Your task to perform on an android device: Search for pizza restaurants on Maps Image 0: 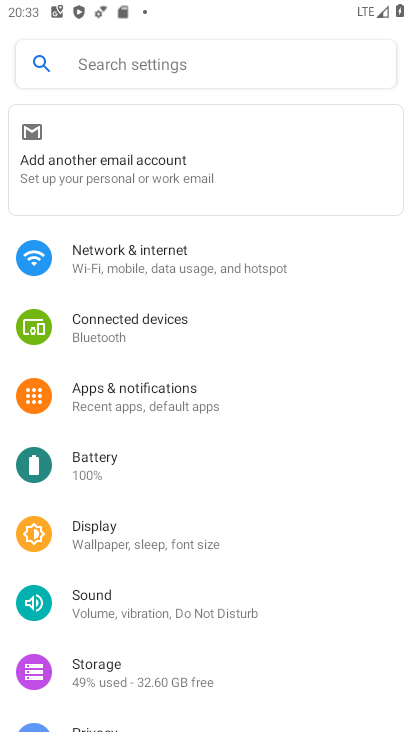
Step 0: press home button
Your task to perform on an android device: Search for pizza restaurants on Maps Image 1: 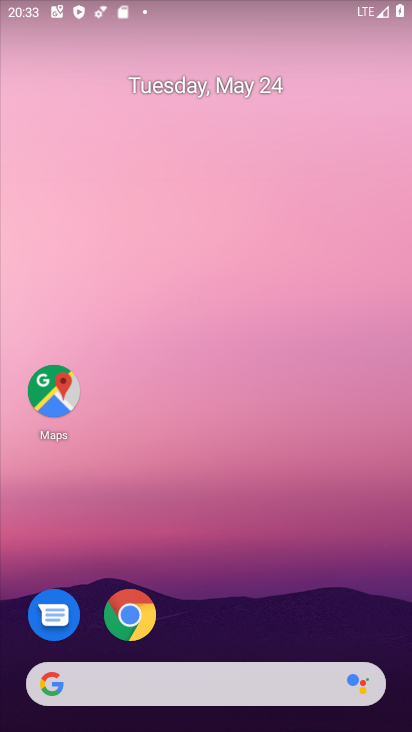
Step 1: click (44, 380)
Your task to perform on an android device: Search for pizza restaurants on Maps Image 2: 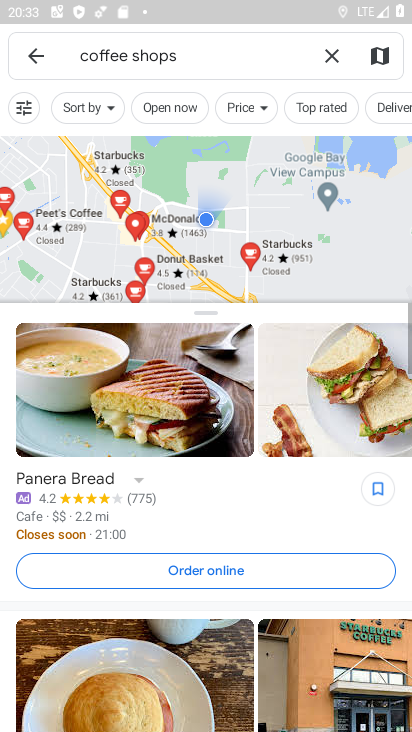
Step 2: click (321, 57)
Your task to perform on an android device: Search for pizza restaurants on Maps Image 3: 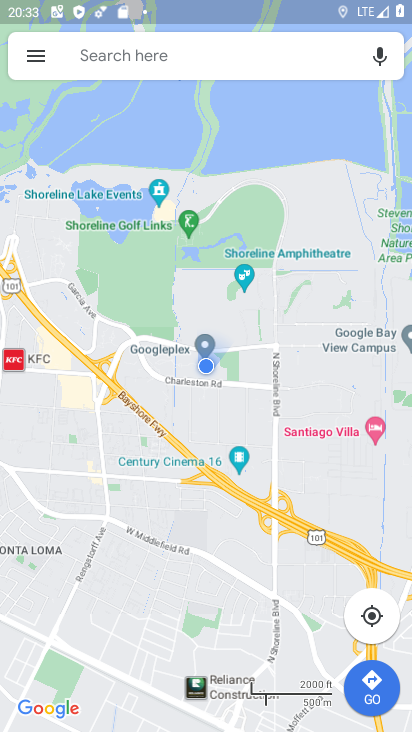
Step 3: click (175, 54)
Your task to perform on an android device: Search for pizza restaurants on Maps Image 4: 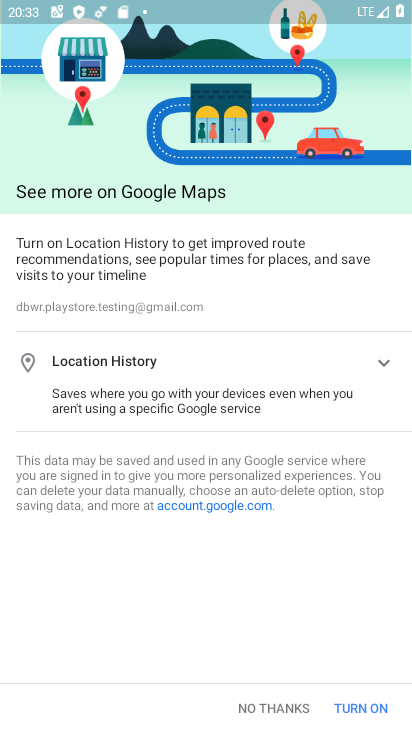
Step 4: click (251, 702)
Your task to perform on an android device: Search for pizza restaurants on Maps Image 5: 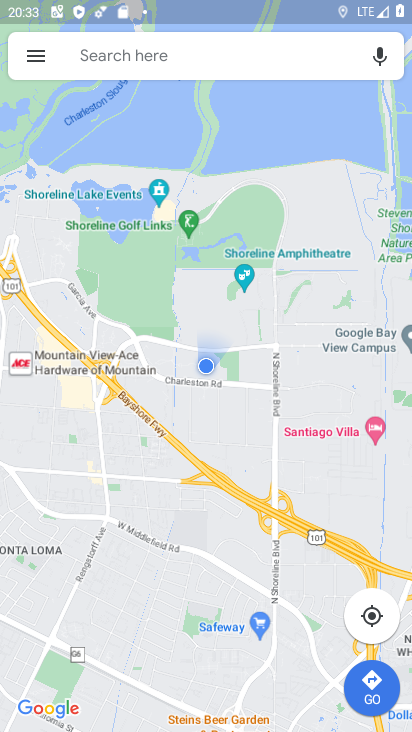
Step 5: click (180, 57)
Your task to perform on an android device: Search for pizza restaurants on Maps Image 6: 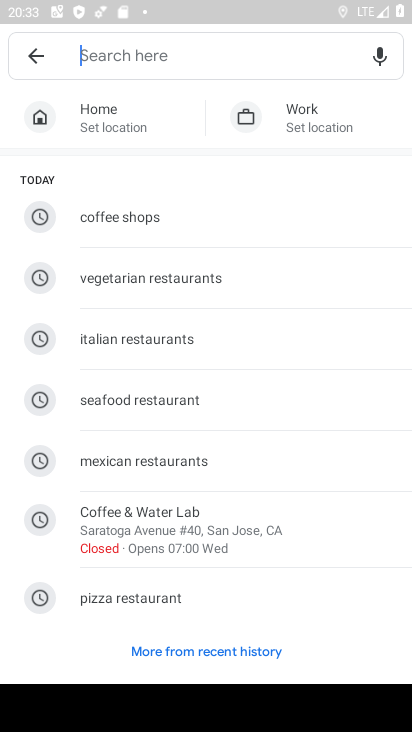
Step 6: type "pizza restaurants"
Your task to perform on an android device: Search for pizza restaurants on Maps Image 7: 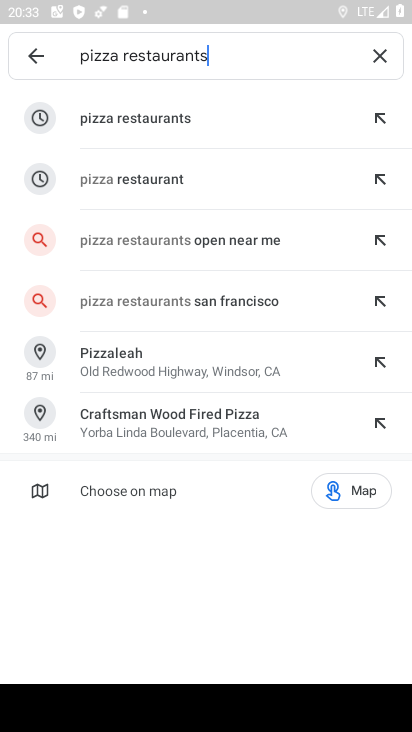
Step 7: click (176, 113)
Your task to perform on an android device: Search for pizza restaurants on Maps Image 8: 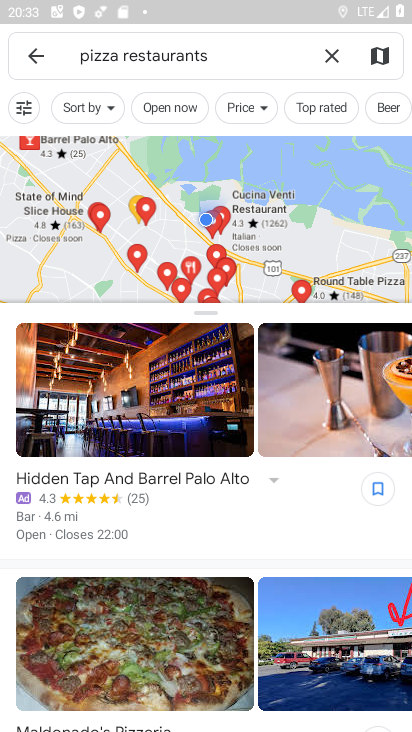
Step 8: task complete